Your task to perform on an android device: open a bookmark in the chrome app Image 0: 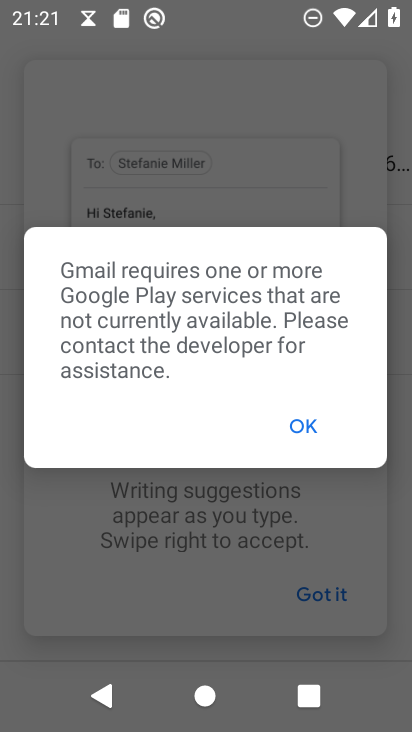
Step 0: press home button
Your task to perform on an android device: open a bookmark in the chrome app Image 1: 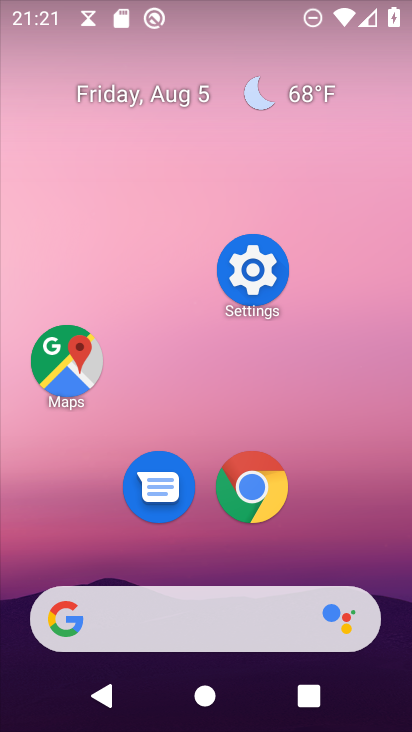
Step 1: click (250, 485)
Your task to perform on an android device: open a bookmark in the chrome app Image 2: 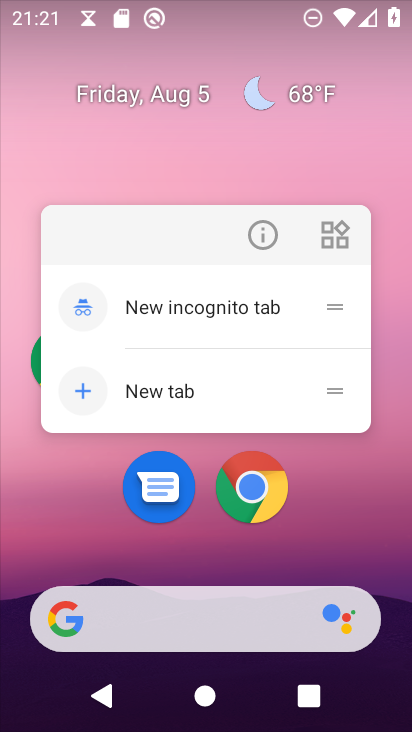
Step 2: click (250, 484)
Your task to perform on an android device: open a bookmark in the chrome app Image 3: 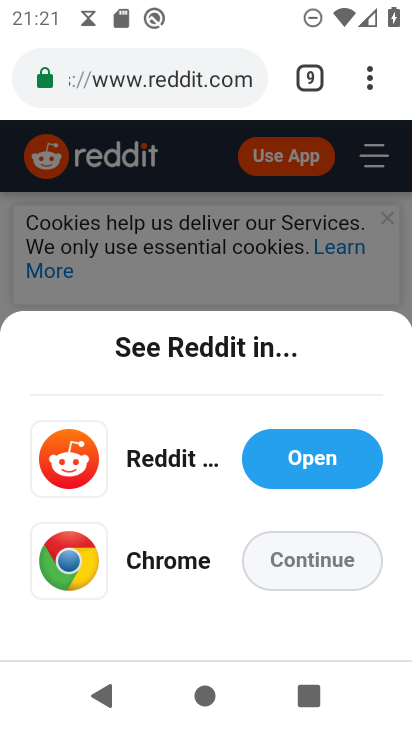
Step 3: drag from (364, 78) to (170, 297)
Your task to perform on an android device: open a bookmark in the chrome app Image 4: 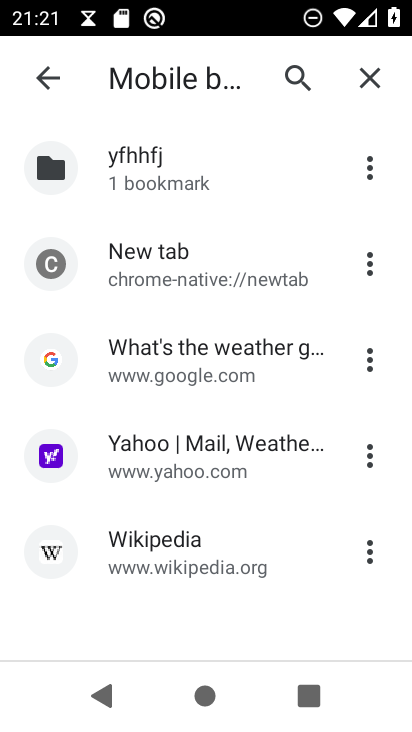
Step 4: click (197, 268)
Your task to perform on an android device: open a bookmark in the chrome app Image 5: 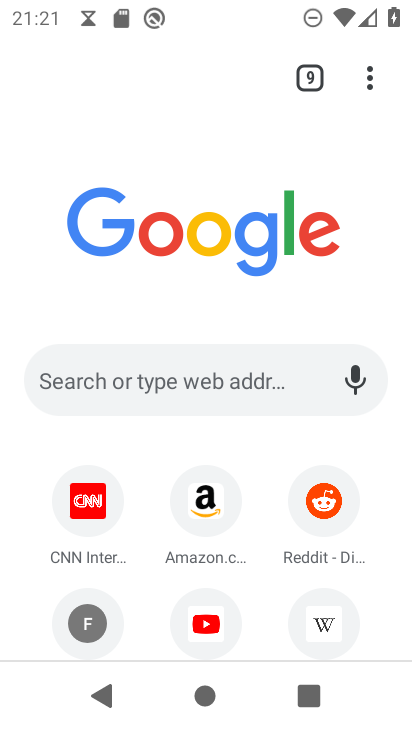
Step 5: task complete